Your task to perform on an android device: uninstall "Spotify: Music and Podcasts" Image 0: 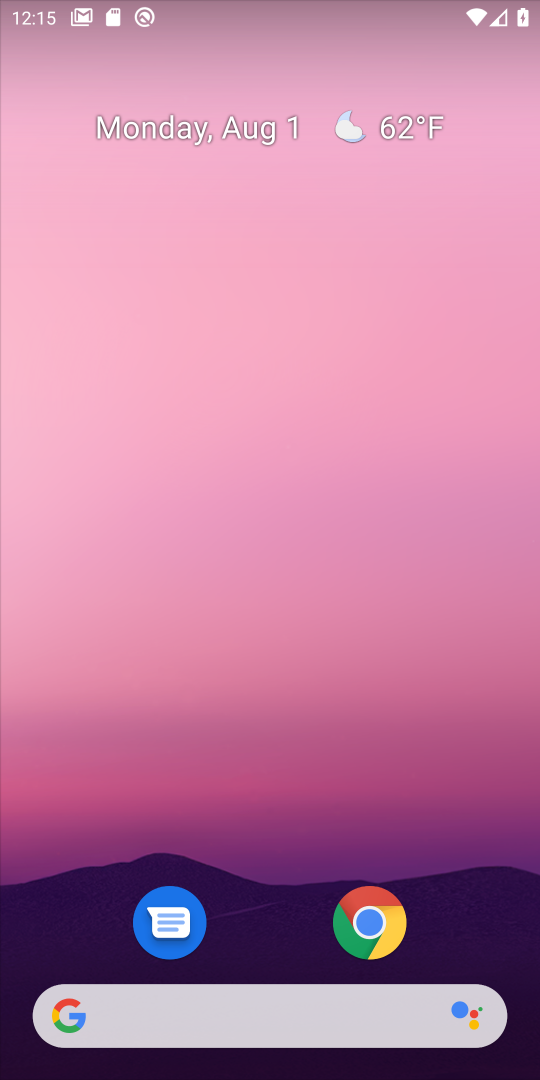
Step 0: drag from (282, 762) to (282, 173)
Your task to perform on an android device: uninstall "Spotify: Music and Podcasts" Image 1: 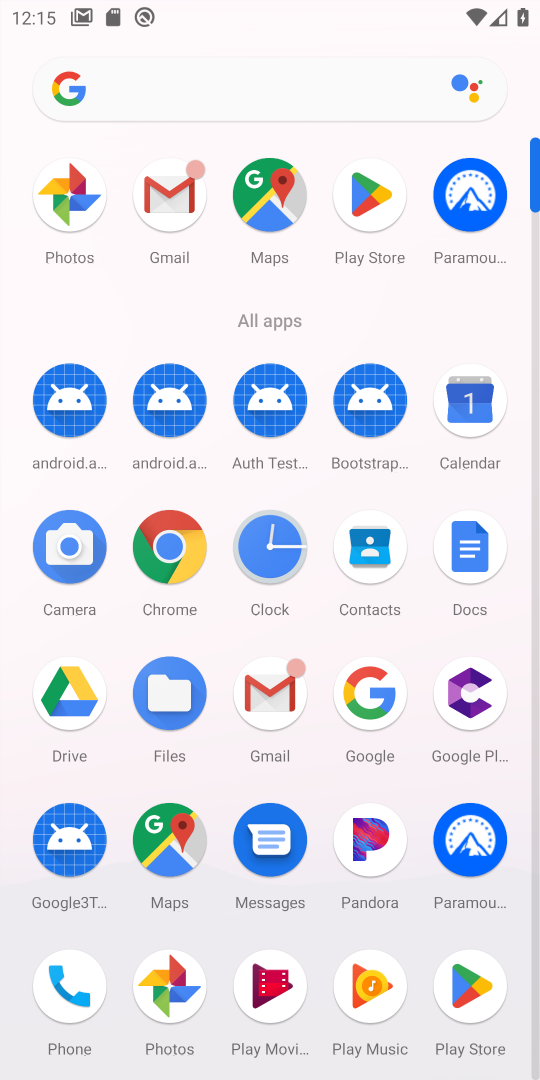
Step 1: click (386, 199)
Your task to perform on an android device: uninstall "Spotify: Music and Podcasts" Image 2: 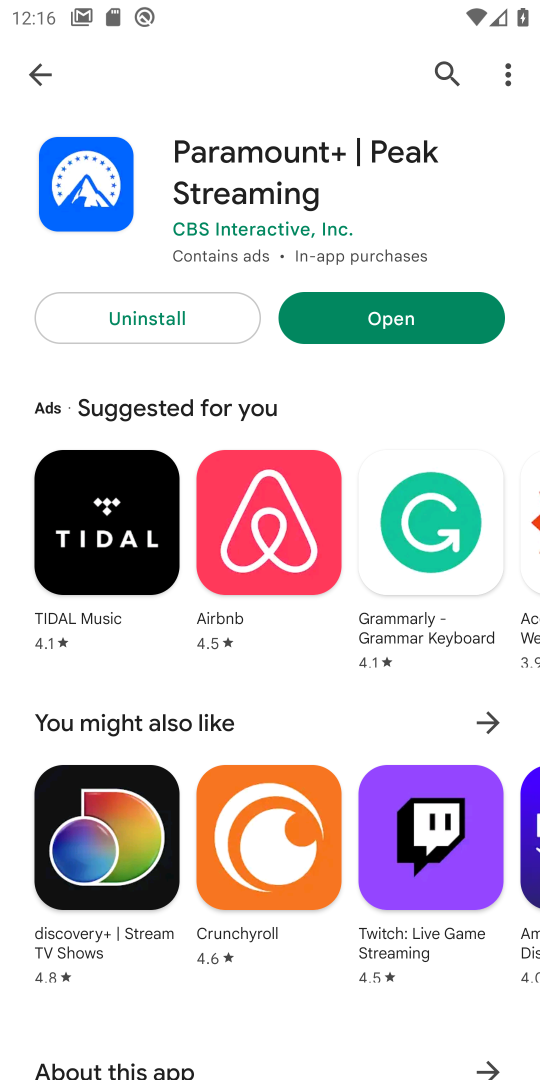
Step 2: click (440, 82)
Your task to perform on an android device: uninstall "Spotify: Music and Podcasts" Image 3: 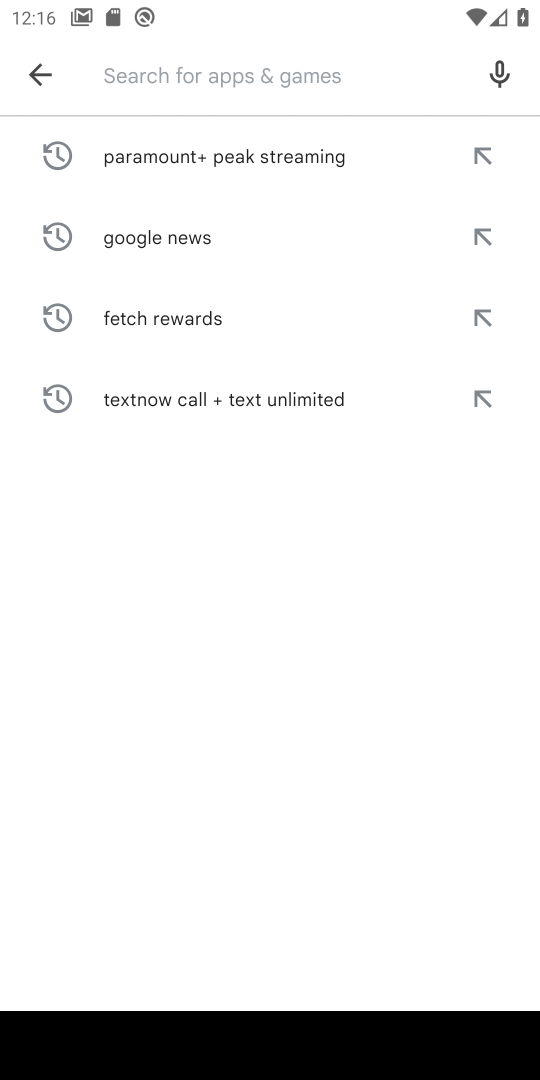
Step 3: type "Spotify: Music and Podcasts"
Your task to perform on an android device: uninstall "Spotify: Music and Podcasts" Image 4: 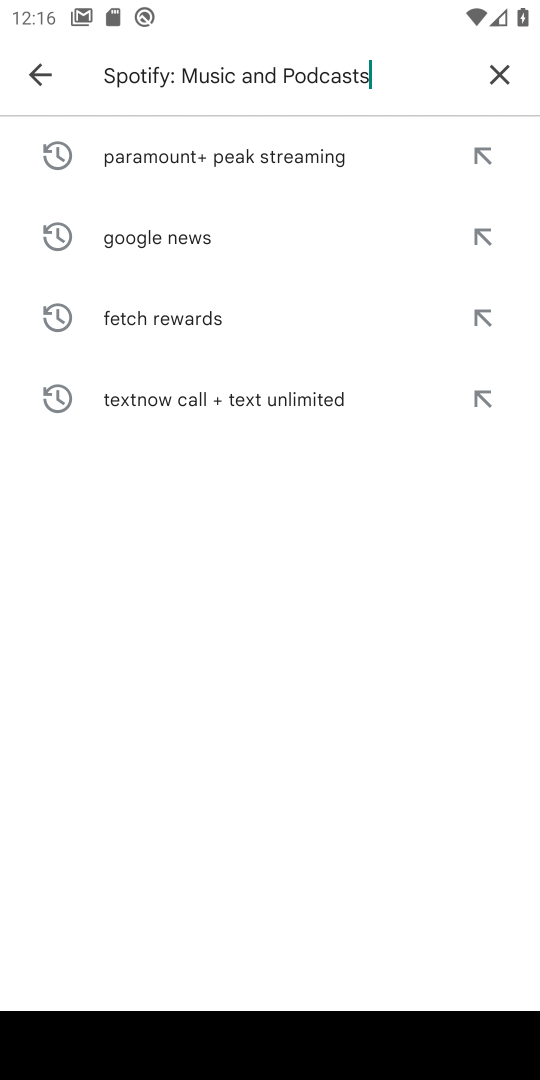
Step 4: type ""
Your task to perform on an android device: uninstall "Spotify: Music and Podcasts" Image 5: 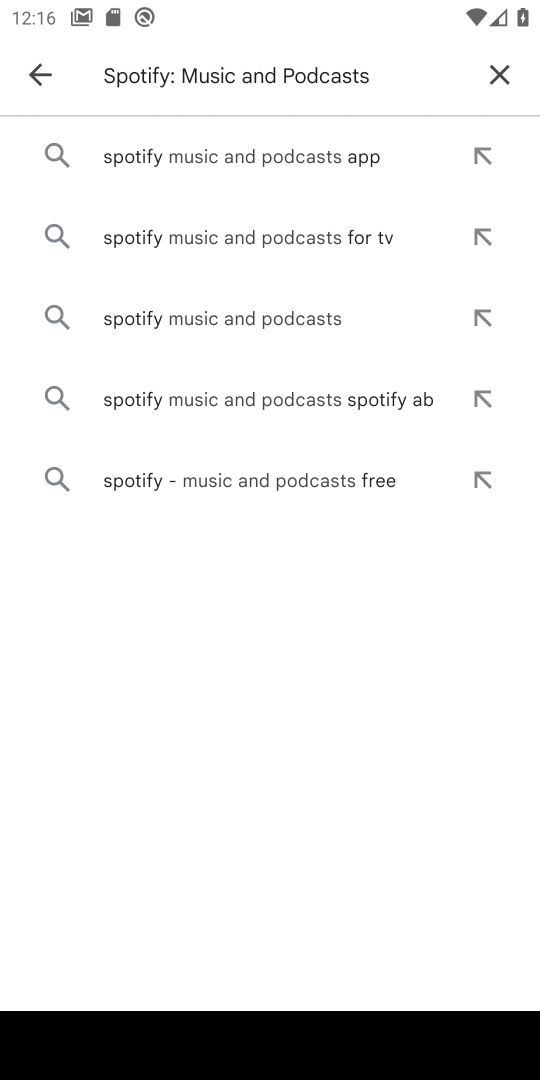
Step 5: click (264, 159)
Your task to perform on an android device: uninstall "Spotify: Music and Podcasts" Image 6: 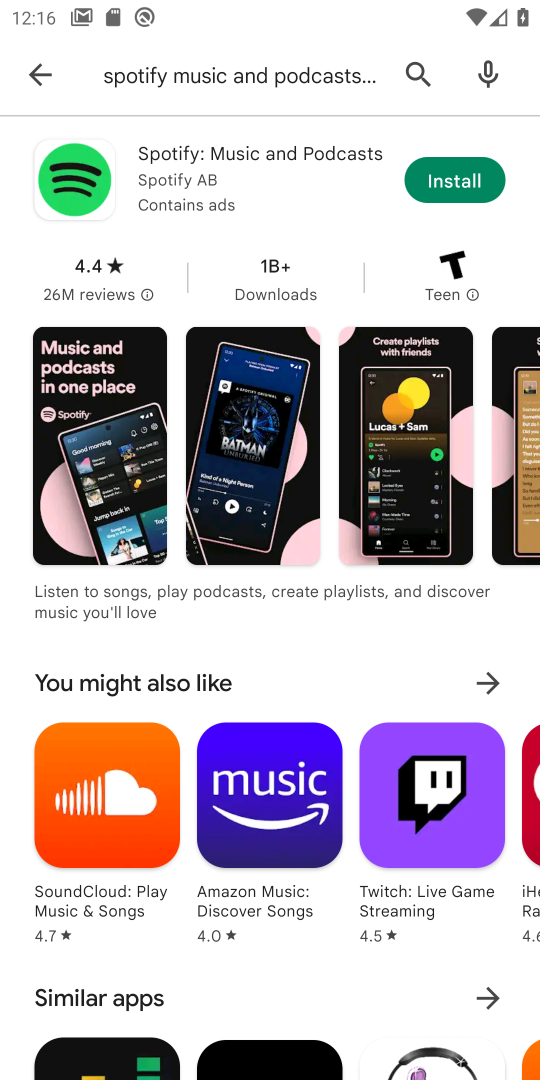
Step 6: click (302, 160)
Your task to perform on an android device: uninstall "Spotify: Music and Podcasts" Image 7: 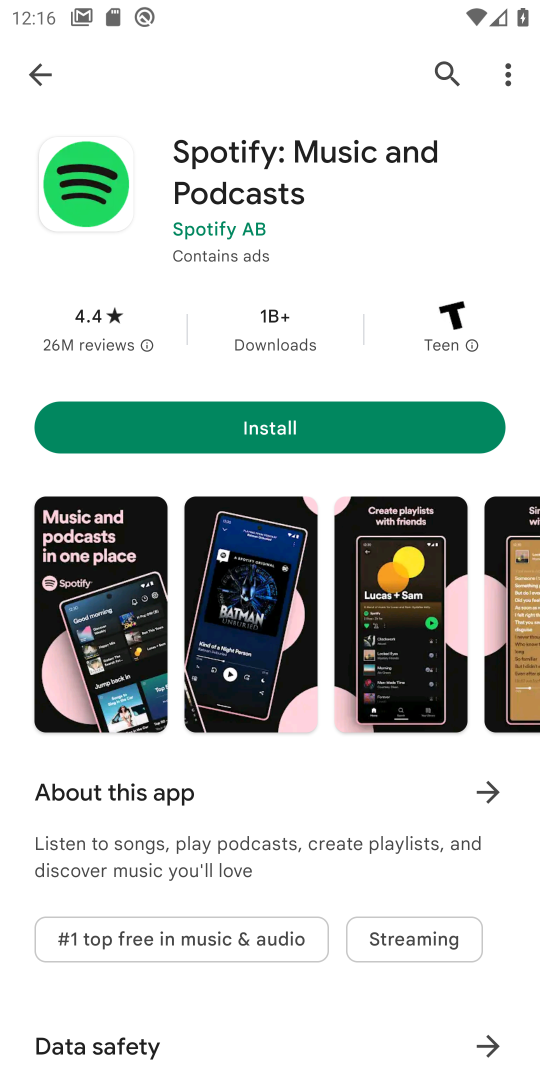
Step 7: task complete